Your task to perform on an android device: check battery use Image 0: 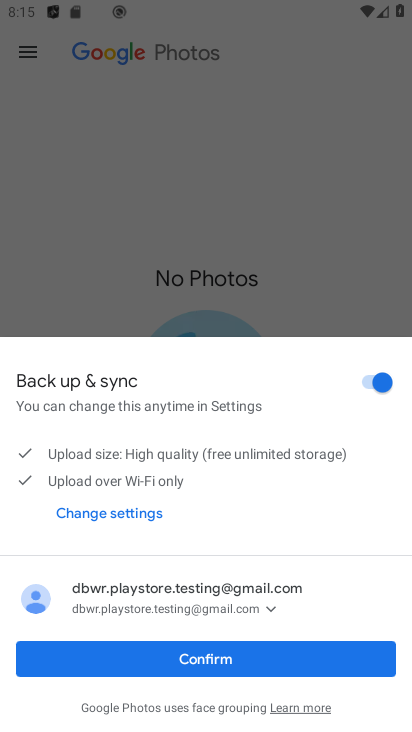
Step 0: press home button
Your task to perform on an android device: check battery use Image 1: 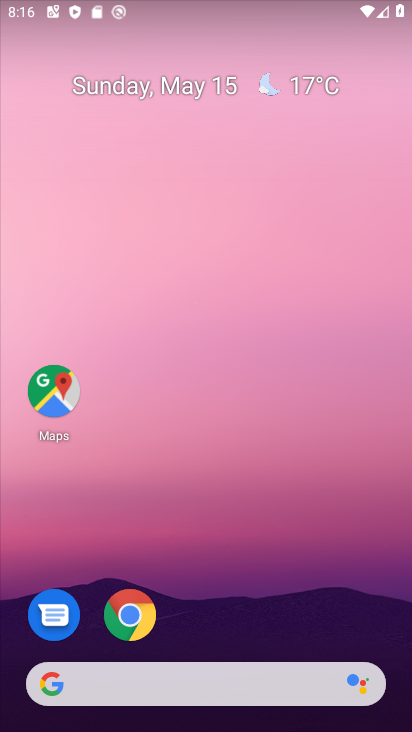
Step 1: drag from (212, 528) to (220, 371)
Your task to perform on an android device: check battery use Image 2: 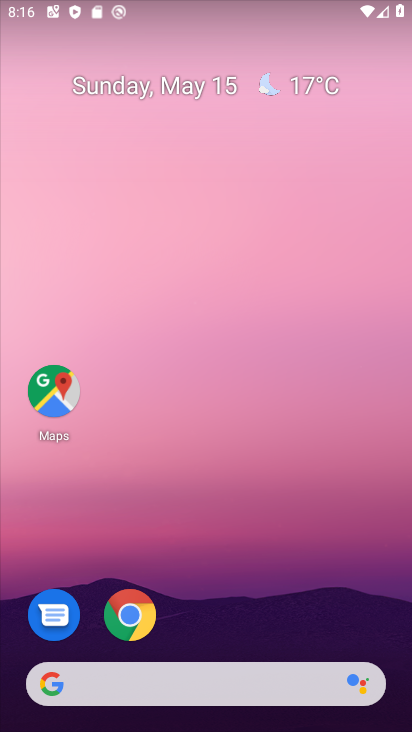
Step 2: drag from (275, 245) to (320, 164)
Your task to perform on an android device: check battery use Image 3: 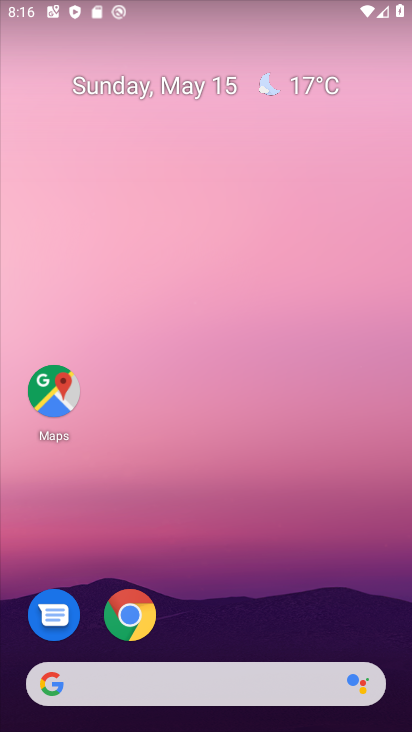
Step 3: click (320, 164)
Your task to perform on an android device: check battery use Image 4: 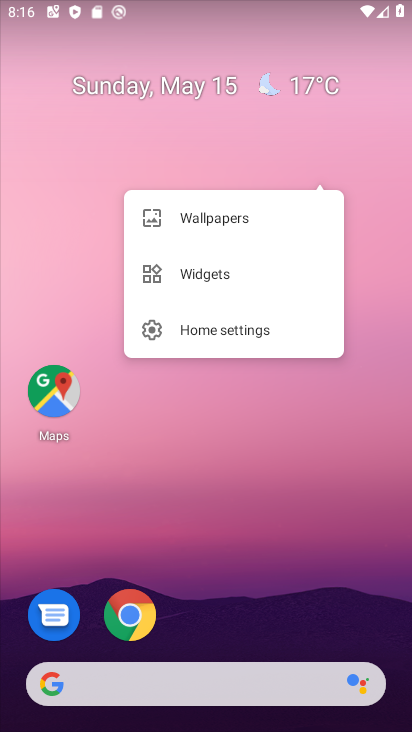
Step 4: drag from (251, 649) to (301, 71)
Your task to perform on an android device: check battery use Image 5: 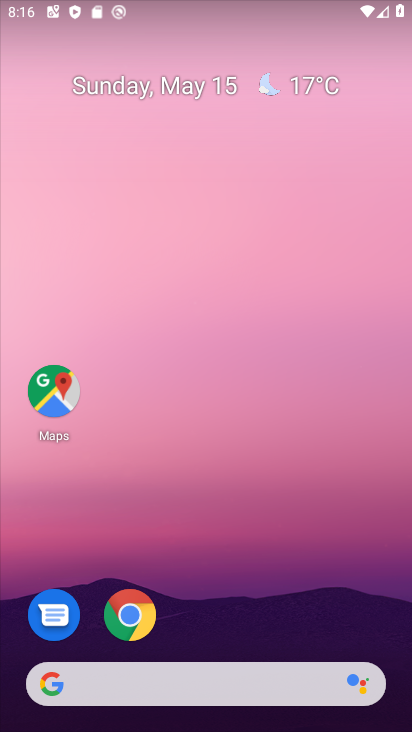
Step 5: drag from (228, 654) to (27, 0)
Your task to perform on an android device: check battery use Image 6: 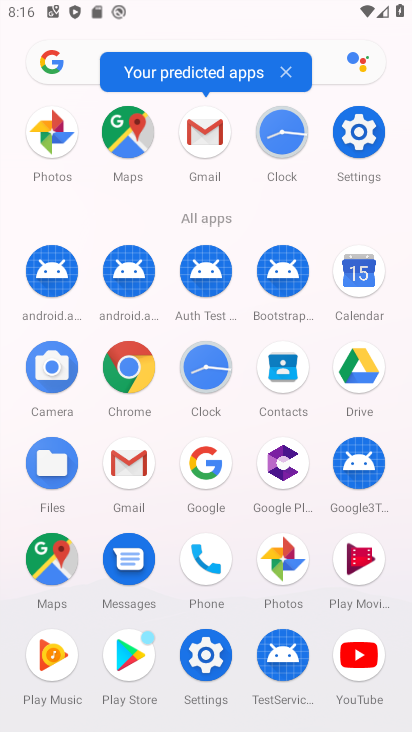
Step 6: click (363, 131)
Your task to perform on an android device: check battery use Image 7: 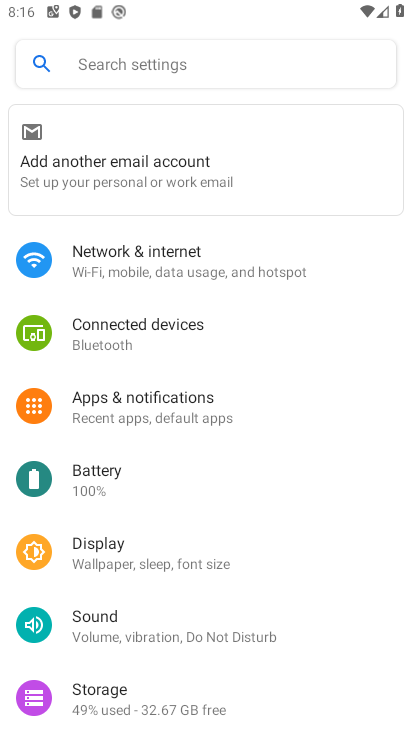
Step 7: click (132, 483)
Your task to perform on an android device: check battery use Image 8: 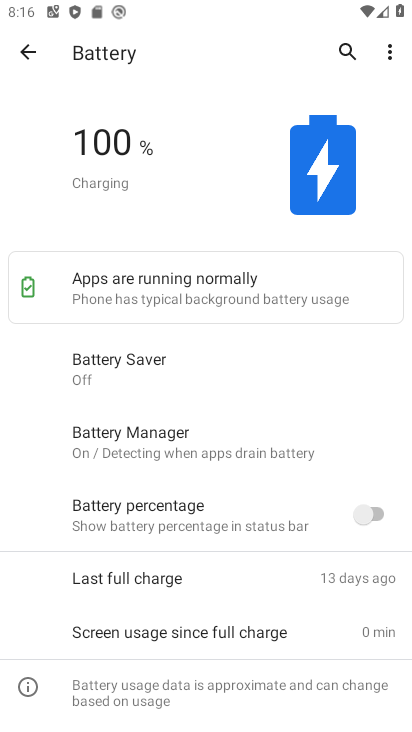
Step 8: click (391, 65)
Your task to perform on an android device: check battery use Image 9: 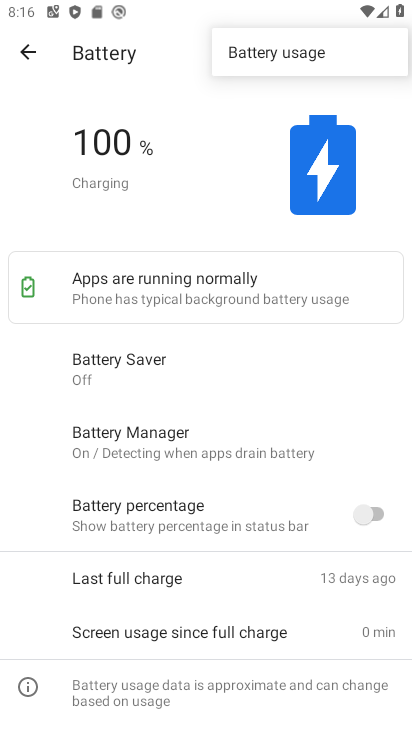
Step 9: click (324, 65)
Your task to perform on an android device: check battery use Image 10: 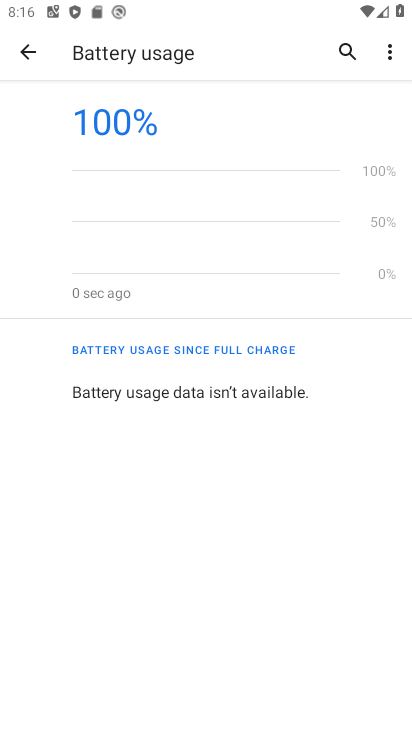
Step 10: task complete